Your task to perform on an android device: Open Google Chrome Image 0: 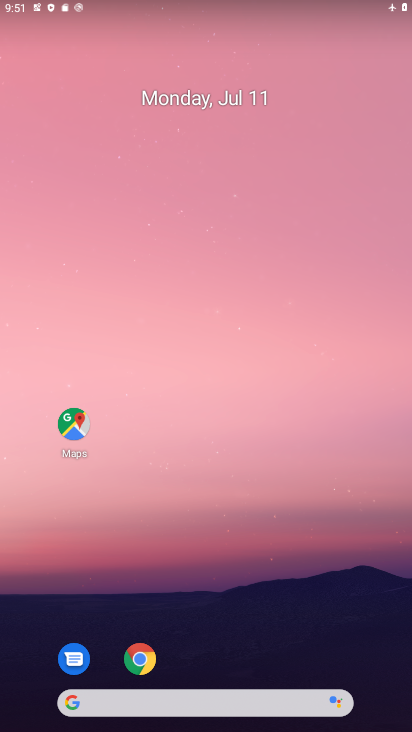
Step 0: drag from (205, 713) to (207, 174)
Your task to perform on an android device: Open Google Chrome Image 1: 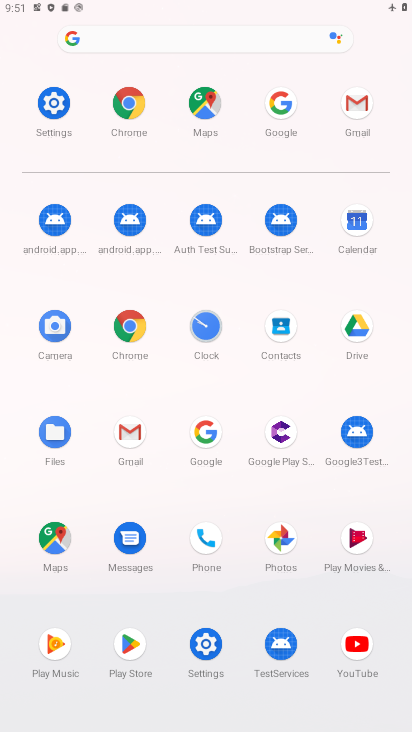
Step 1: click (126, 101)
Your task to perform on an android device: Open Google Chrome Image 2: 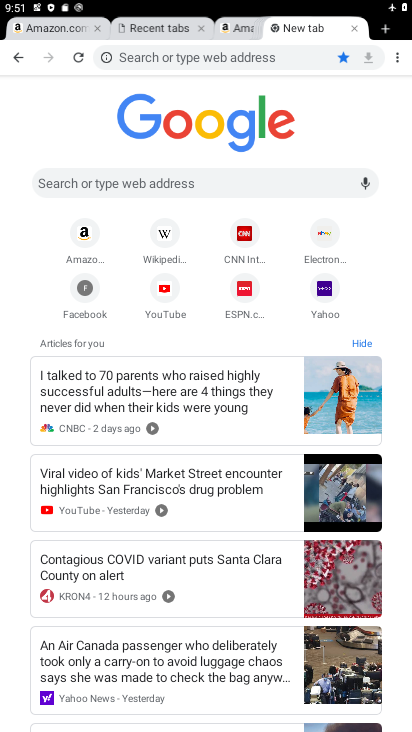
Step 2: task complete